Your task to perform on an android device: set an alarm Image 0: 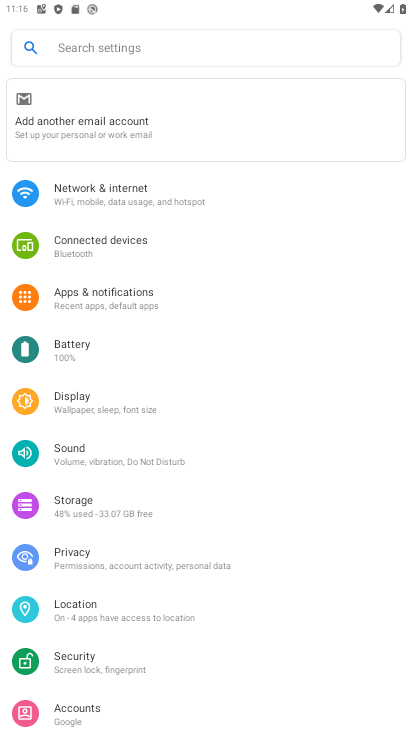
Step 0: press home button
Your task to perform on an android device: set an alarm Image 1: 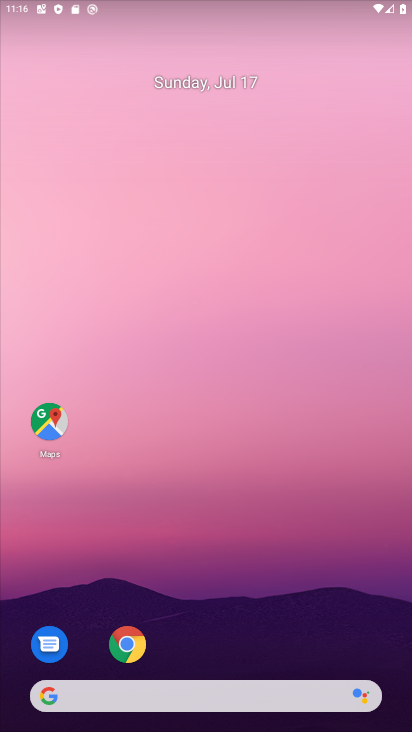
Step 1: drag from (224, 646) to (198, 108)
Your task to perform on an android device: set an alarm Image 2: 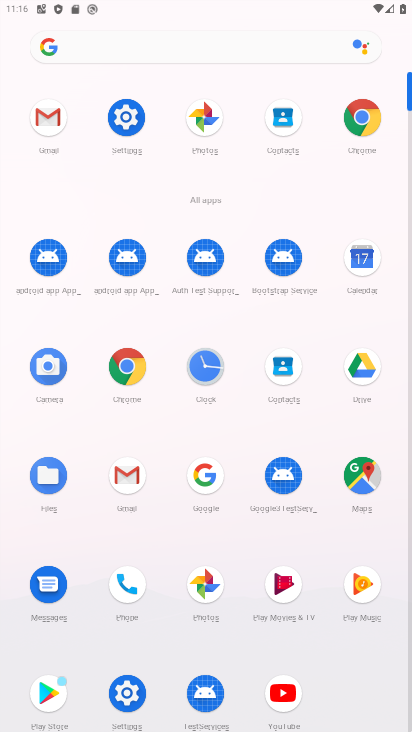
Step 2: click (202, 365)
Your task to perform on an android device: set an alarm Image 3: 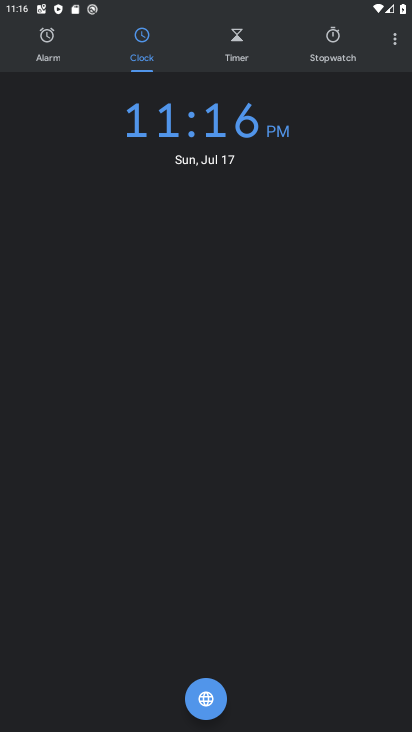
Step 3: click (69, 50)
Your task to perform on an android device: set an alarm Image 4: 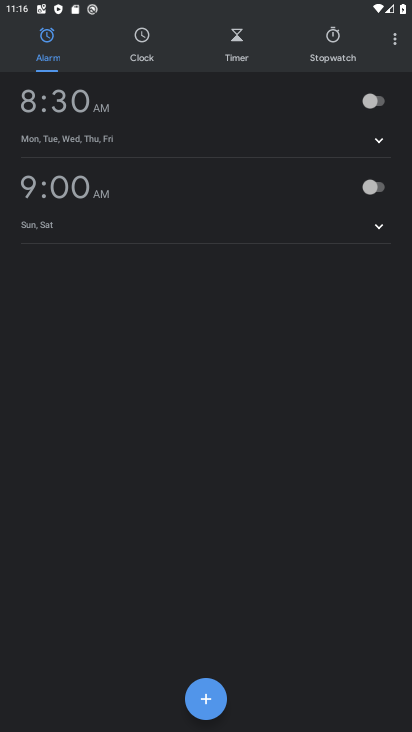
Step 4: click (169, 703)
Your task to perform on an android device: set an alarm Image 5: 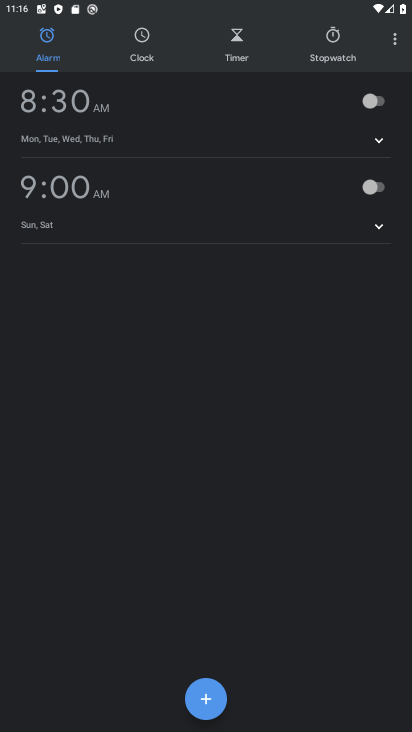
Step 5: click (195, 709)
Your task to perform on an android device: set an alarm Image 6: 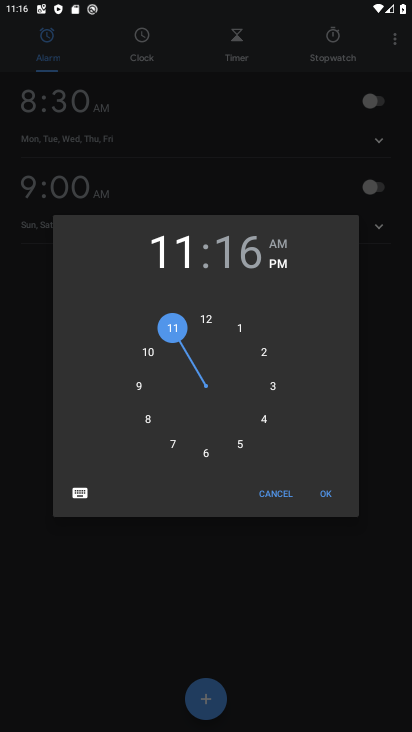
Step 6: click (325, 489)
Your task to perform on an android device: set an alarm Image 7: 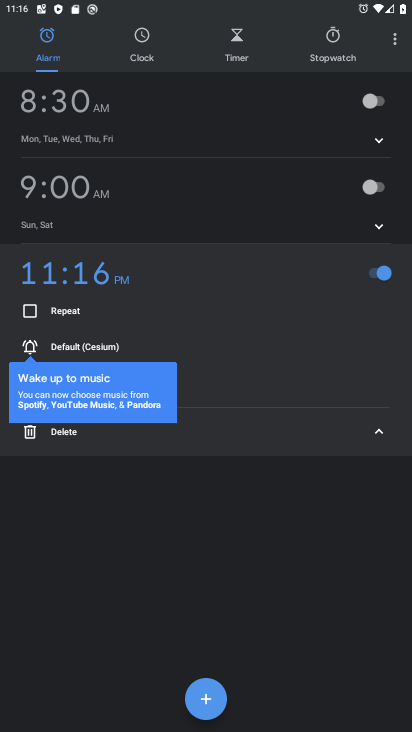
Step 7: task complete